Your task to perform on an android device: turn off sleep mode Image 0: 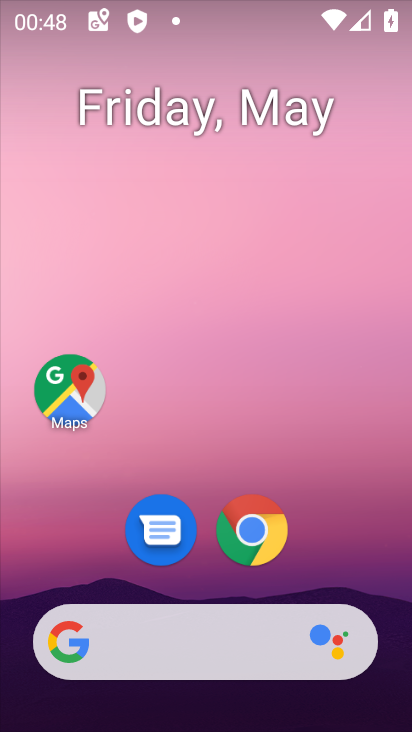
Step 0: drag from (344, 568) to (266, 134)
Your task to perform on an android device: turn off sleep mode Image 1: 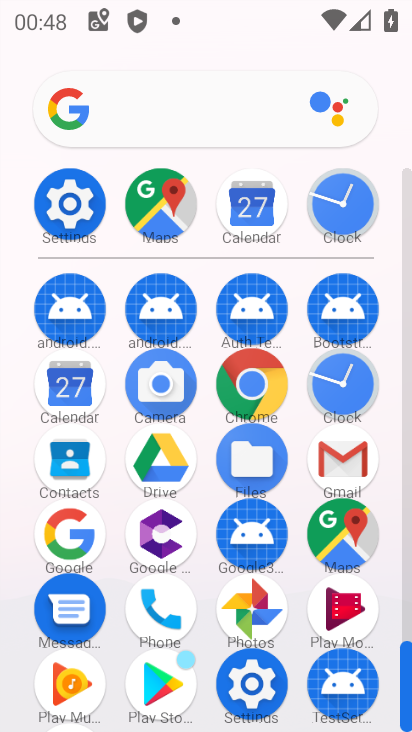
Step 1: click (69, 203)
Your task to perform on an android device: turn off sleep mode Image 2: 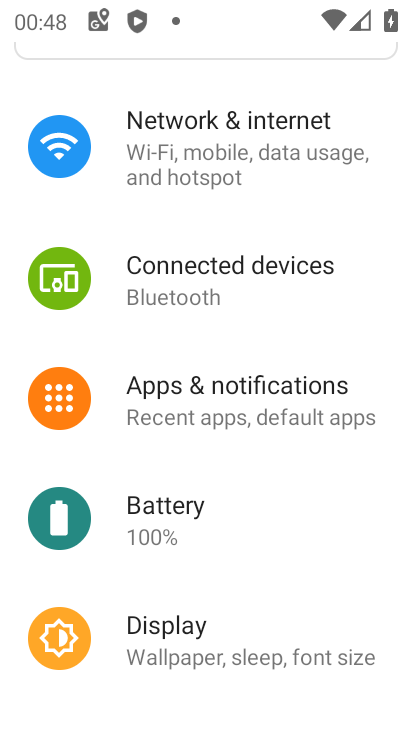
Step 2: drag from (200, 459) to (253, 364)
Your task to perform on an android device: turn off sleep mode Image 3: 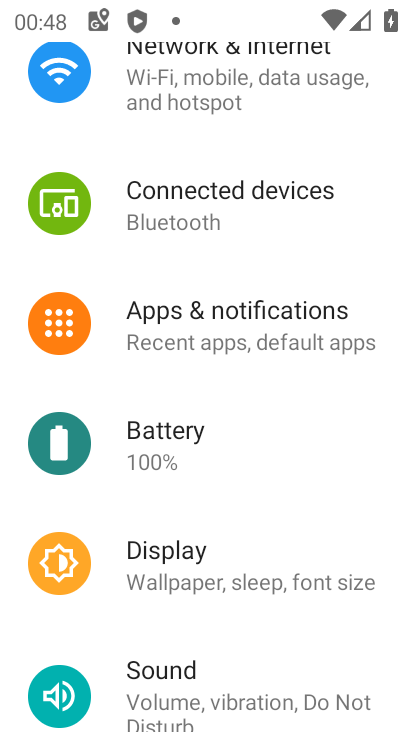
Step 3: drag from (209, 492) to (253, 385)
Your task to perform on an android device: turn off sleep mode Image 4: 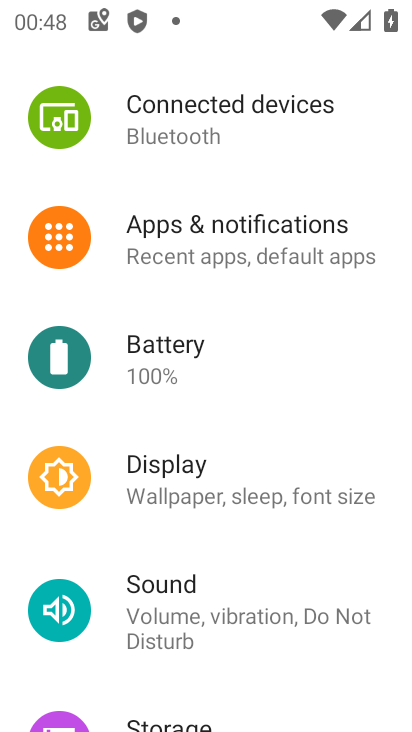
Step 4: drag from (170, 417) to (250, 290)
Your task to perform on an android device: turn off sleep mode Image 5: 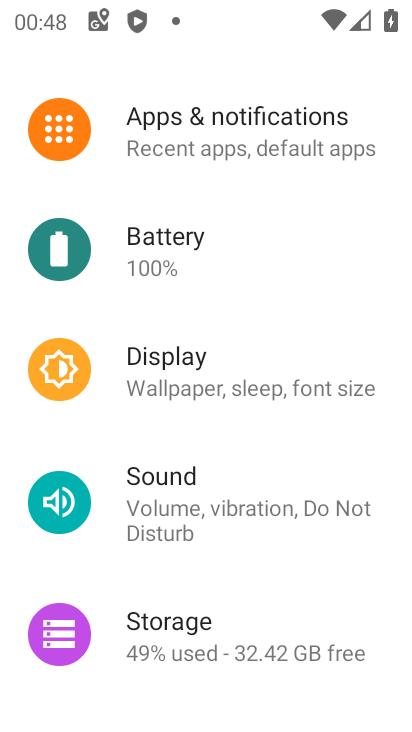
Step 5: click (192, 399)
Your task to perform on an android device: turn off sleep mode Image 6: 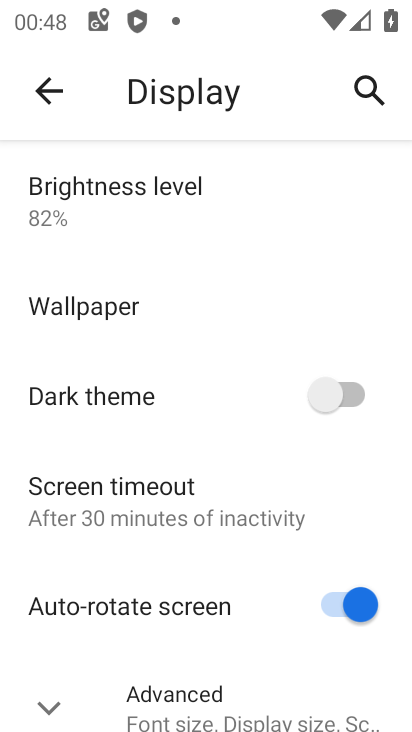
Step 6: click (176, 498)
Your task to perform on an android device: turn off sleep mode Image 7: 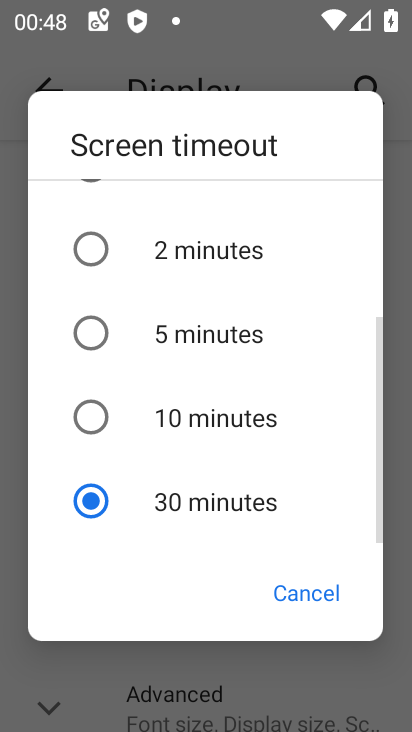
Step 7: click (184, 492)
Your task to perform on an android device: turn off sleep mode Image 8: 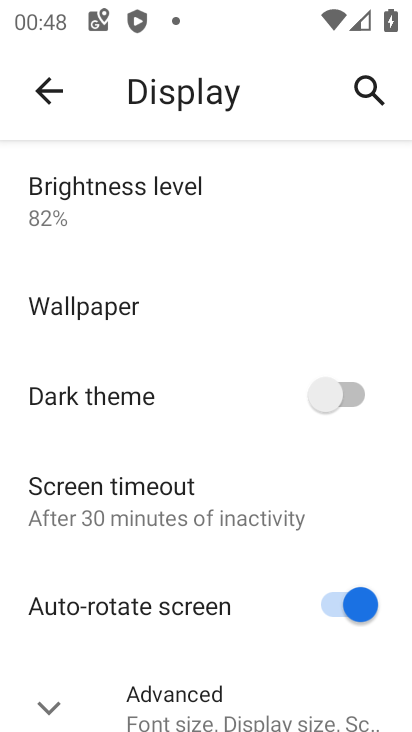
Step 8: drag from (195, 557) to (195, 406)
Your task to perform on an android device: turn off sleep mode Image 9: 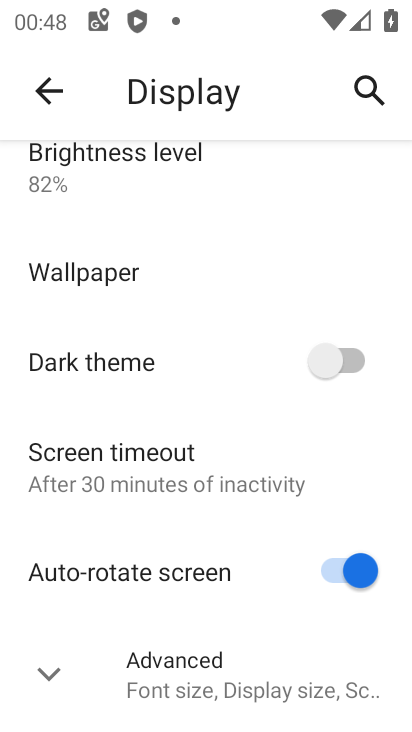
Step 9: click (179, 671)
Your task to perform on an android device: turn off sleep mode Image 10: 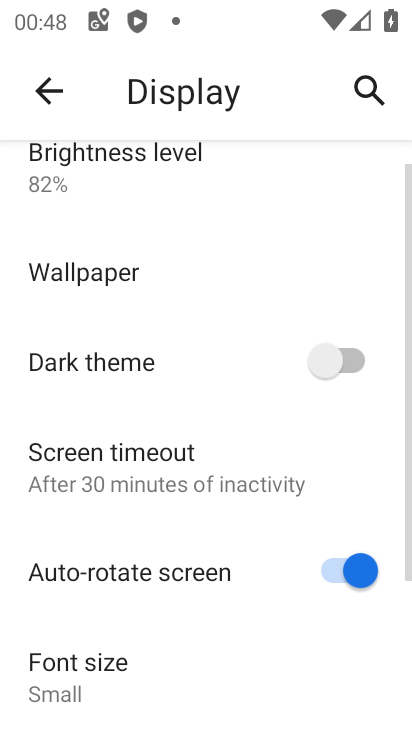
Step 10: drag from (134, 623) to (151, 495)
Your task to perform on an android device: turn off sleep mode Image 11: 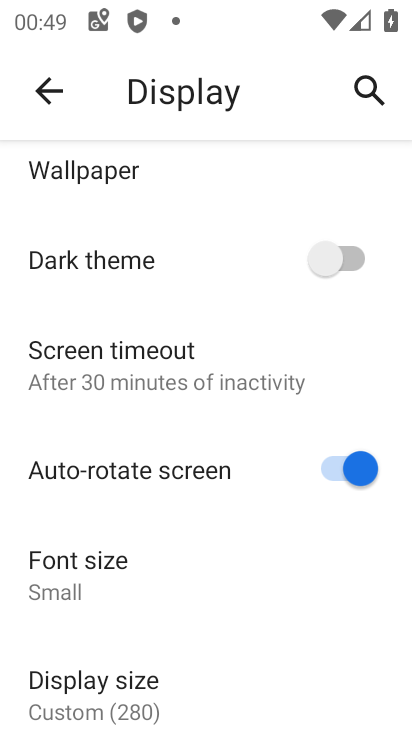
Step 11: drag from (143, 650) to (184, 490)
Your task to perform on an android device: turn off sleep mode Image 12: 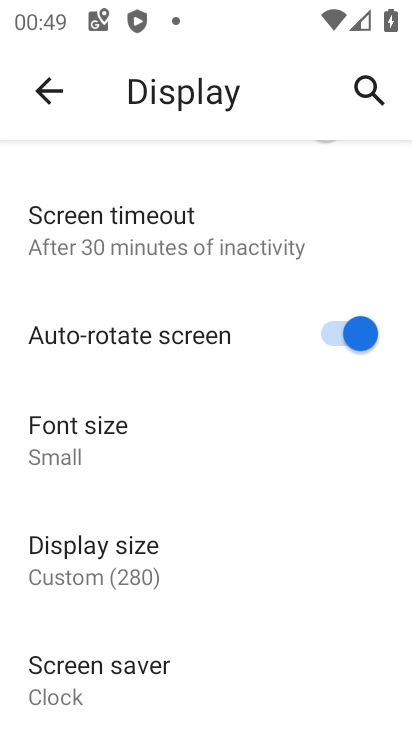
Step 12: click (110, 577)
Your task to perform on an android device: turn off sleep mode Image 13: 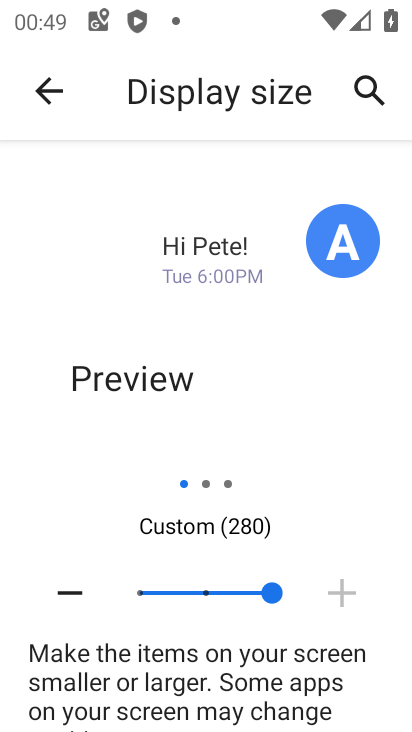
Step 13: click (43, 97)
Your task to perform on an android device: turn off sleep mode Image 14: 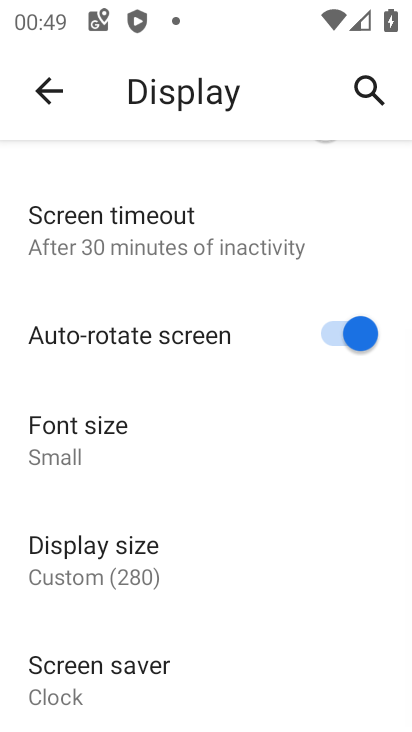
Step 14: drag from (96, 603) to (168, 497)
Your task to perform on an android device: turn off sleep mode Image 15: 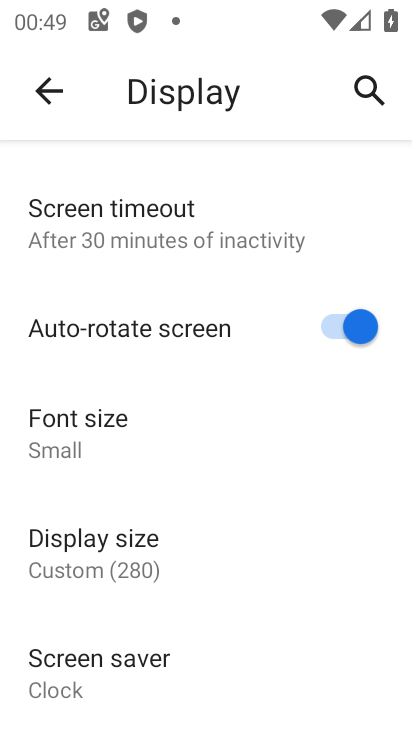
Step 15: click (111, 648)
Your task to perform on an android device: turn off sleep mode Image 16: 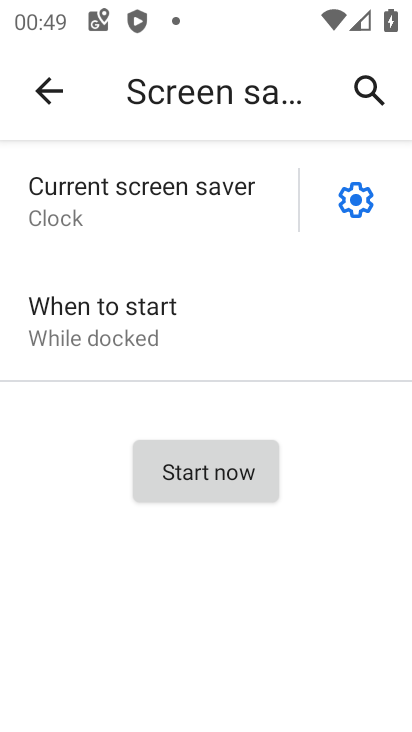
Step 16: click (355, 204)
Your task to perform on an android device: turn off sleep mode Image 17: 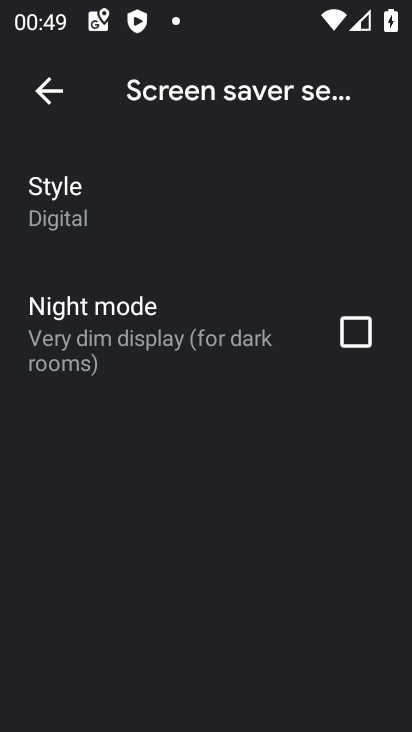
Step 17: task complete